Your task to perform on an android device: find photos in the google photos app Image 0: 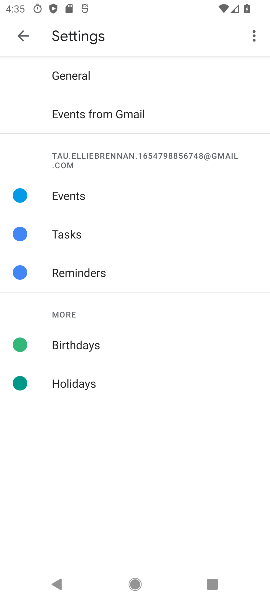
Step 0: click (17, 34)
Your task to perform on an android device: find photos in the google photos app Image 1: 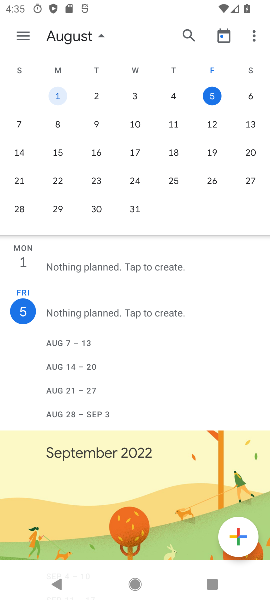
Step 1: drag from (142, 479) to (123, 52)
Your task to perform on an android device: find photos in the google photos app Image 2: 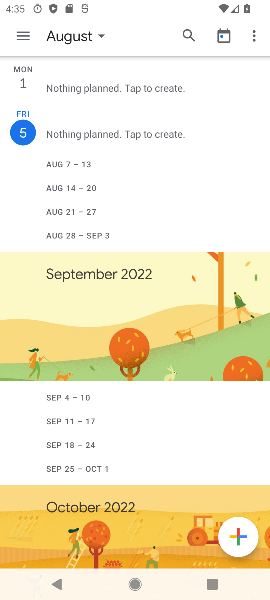
Step 2: press back button
Your task to perform on an android device: find photos in the google photos app Image 3: 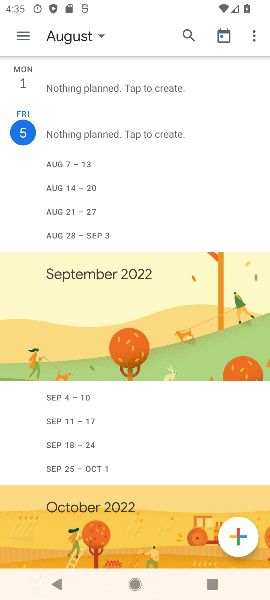
Step 3: press back button
Your task to perform on an android device: find photos in the google photos app Image 4: 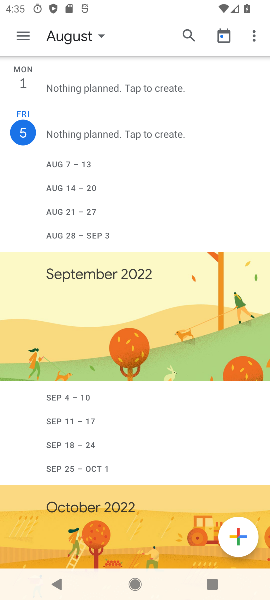
Step 4: press back button
Your task to perform on an android device: find photos in the google photos app Image 5: 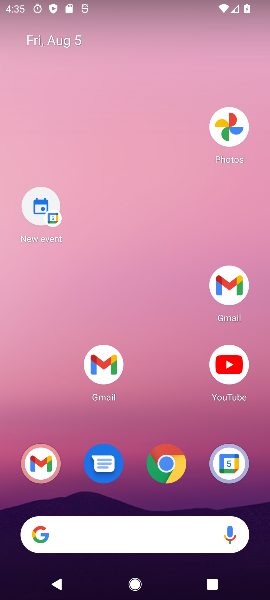
Step 5: press back button
Your task to perform on an android device: find photos in the google photos app Image 6: 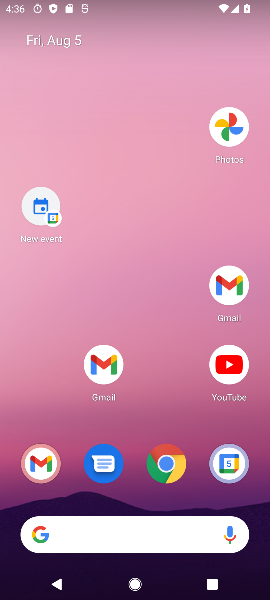
Step 6: drag from (173, 542) to (148, 208)
Your task to perform on an android device: find photos in the google photos app Image 7: 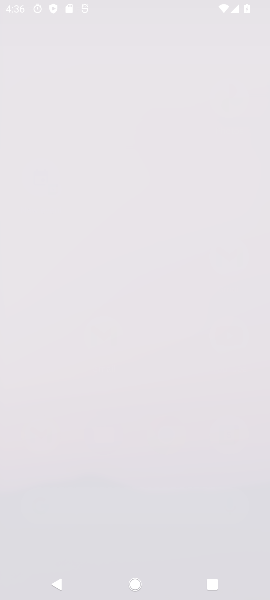
Step 7: drag from (138, 328) to (138, 222)
Your task to perform on an android device: find photos in the google photos app Image 8: 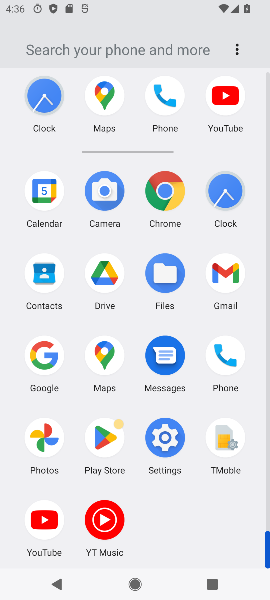
Step 8: click (40, 434)
Your task to perform on an android device: find photos in the google photos app Image 9: 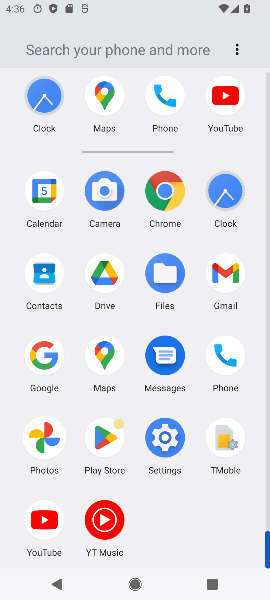
Step 9: click (39, 435)
Your task to perform on an android device: find photos in the google photos app Image 10: 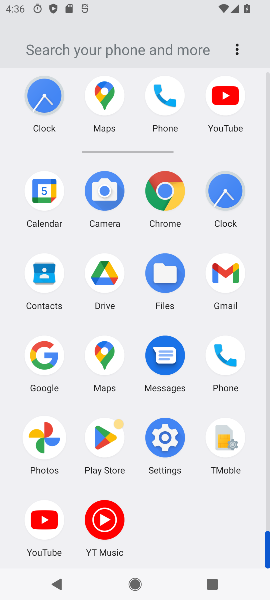
Step 10: click (44, 437)
Your task to perform on an android device: find photos in the google photos app Image 11: 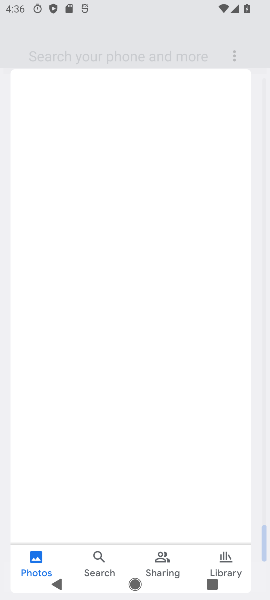
Step 11: click (47, 438)
Your task to perform on an android device: find photos in the google photos app Image 12: 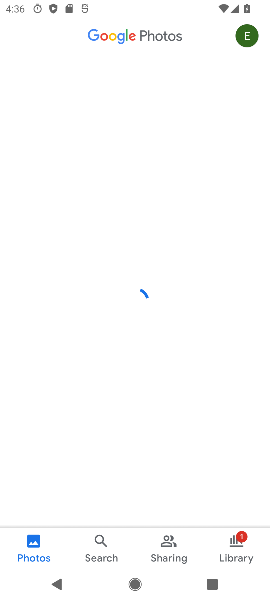
Step 12: click (50, 440)
Your task to perform on an android device: find photos in the google photos app Image 13: 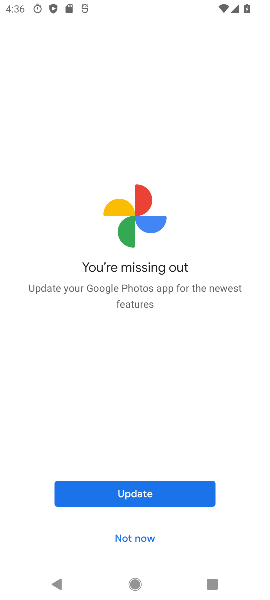
Step 13: click (138, 536)
Your task to perform on an android device: find photos in the google photos app Image 14: 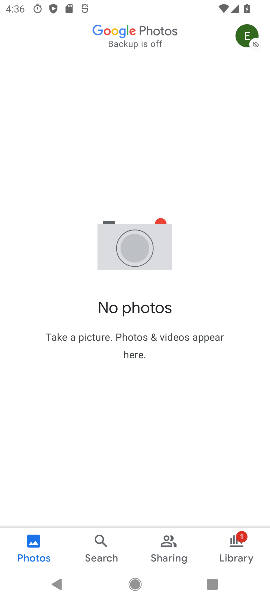
Step 14: task complete